Your task to perform on an android device: change notifications settings Image 0: 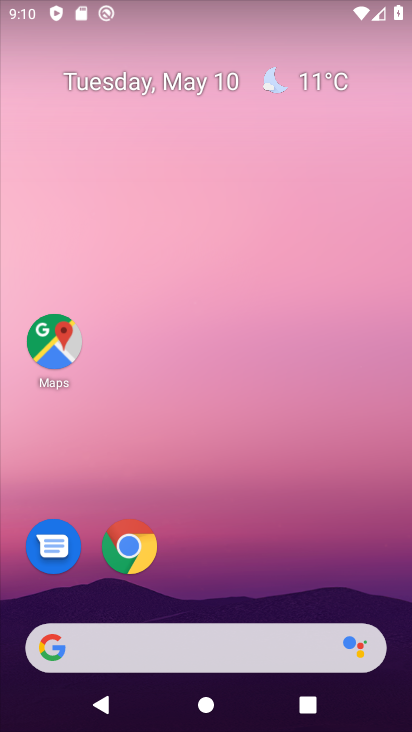
Step 0: drag from (195, 466) to (243, 69)
Your task to perform on an android device: change notifications settings Image 1: 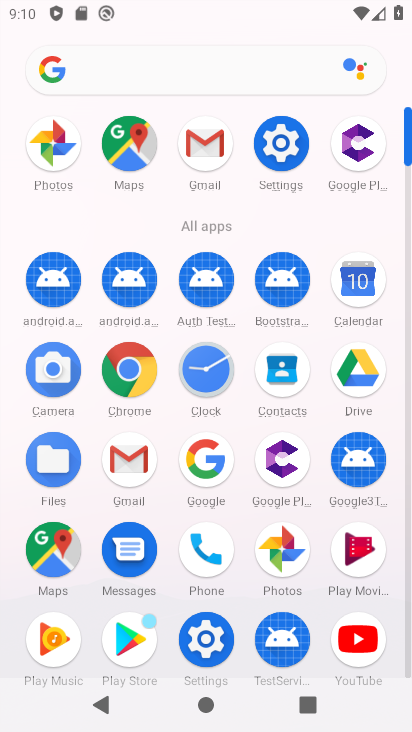
Step 1: click (281, 148)
Your task to perform on an android device: change notifications settings Image 2: 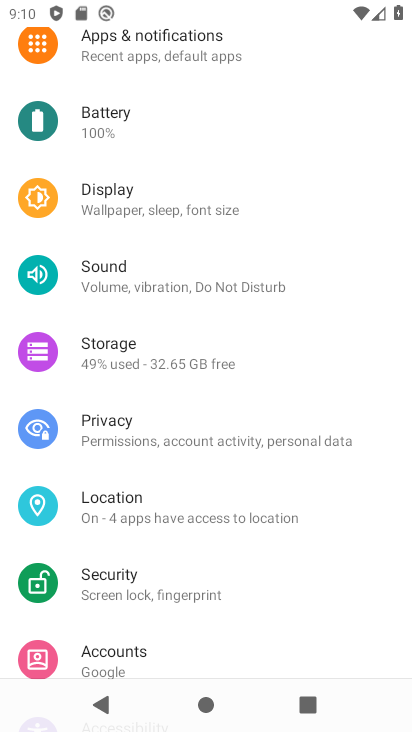
Step 2: click (162, 49)
Your task to perform on an android device: change notifications settings Image 3: 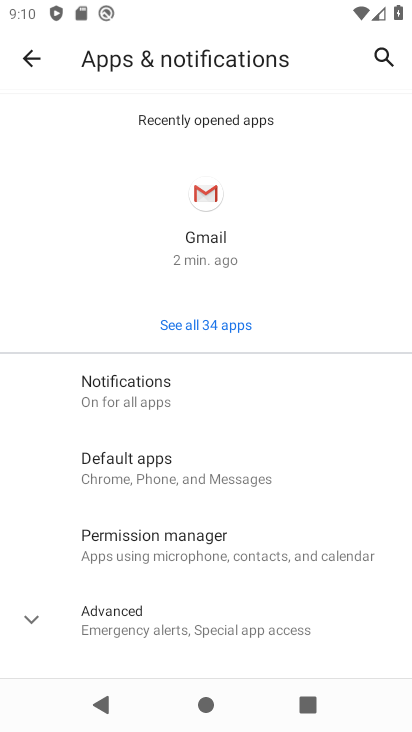
Step 3: click (181, 389)
Your task to perform on an android device: change notifications settings Image 4: 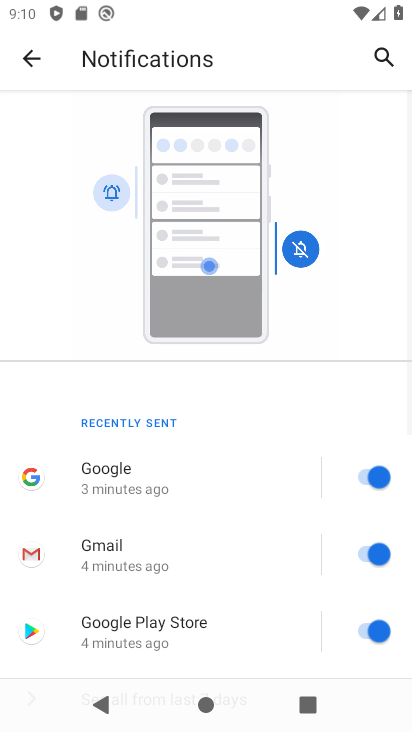
Step 4: drag from (180, 626) to (289, 109)
Your task to perform on an android device: change notifications settings Image 5: 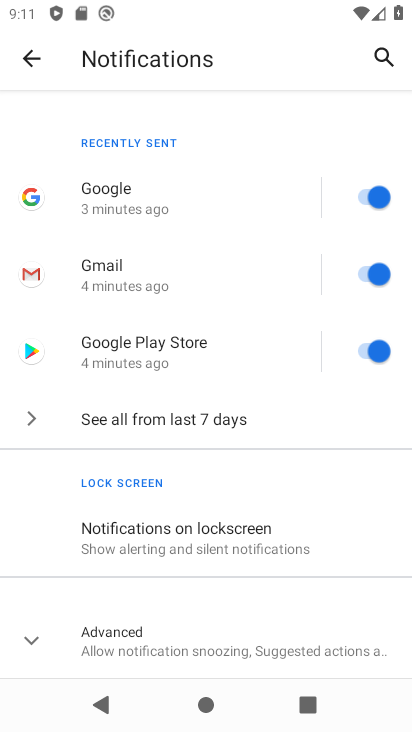
Step 5: click (213, 633)
Your task to perform on an android device: change notifications settings Image 6: 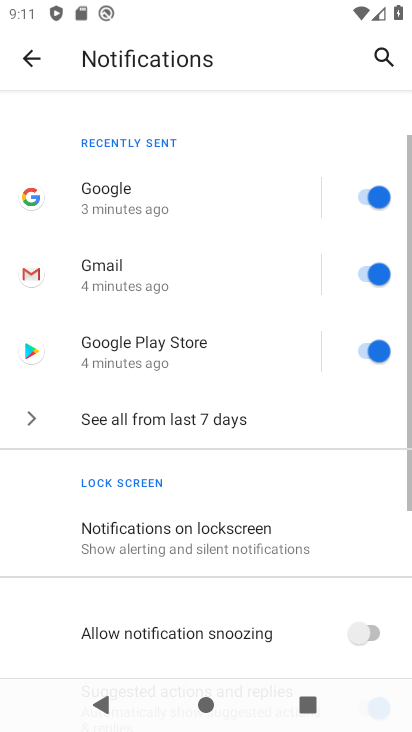
Step 6: drag from (217, 615) to (270, 252)
Your task to perform on an android device: change notifications settings Image 7: 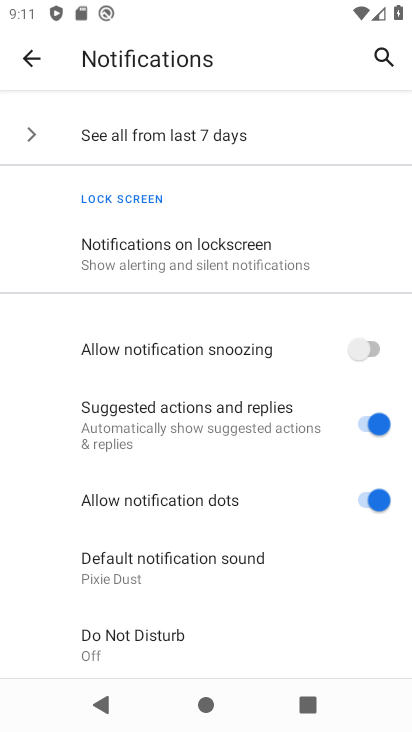
Step 7: click (361, 348)
Your task to perform on an android device: change notifications settings Image 8: 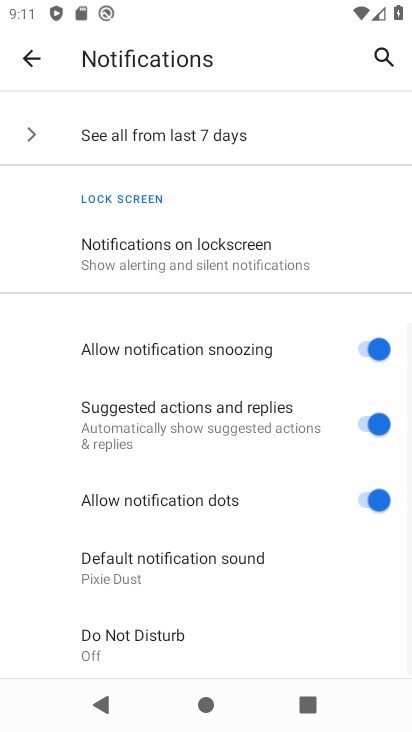
Step 8: task complete